Your task to perform on an android device: Go to calendar. Show me events next week Image 0: 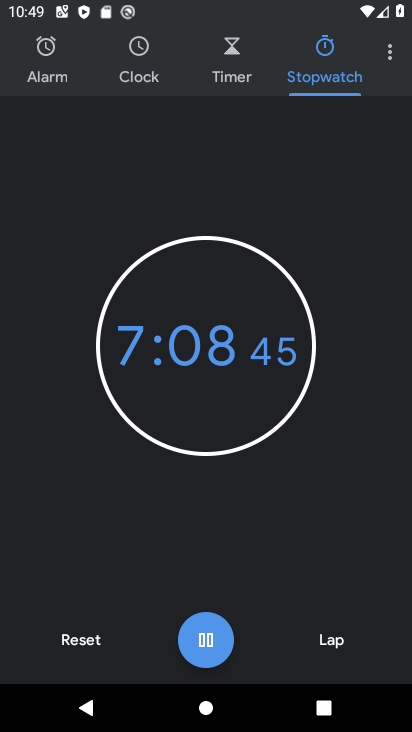
Step 0: press home button
Your task to perform on an android device: Go to calendar. Show me events next week Image 1: 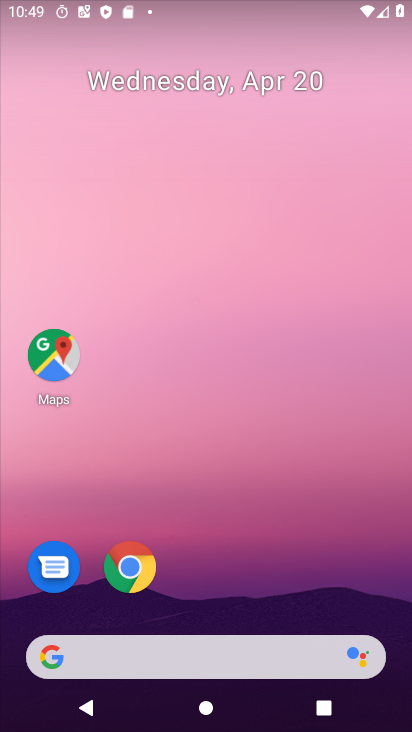
Step 1: drag from (211, 570) to (201, 165)
Your task to perform on an android device: Go to calendar. Show me events next week Image 2: 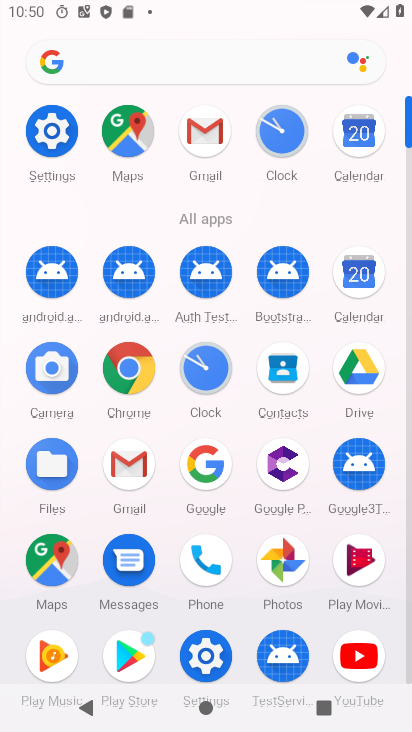
Step 2: click (371, 289)
Your task to perform on an android device: Go to calendar. Show me events next week Image 3: 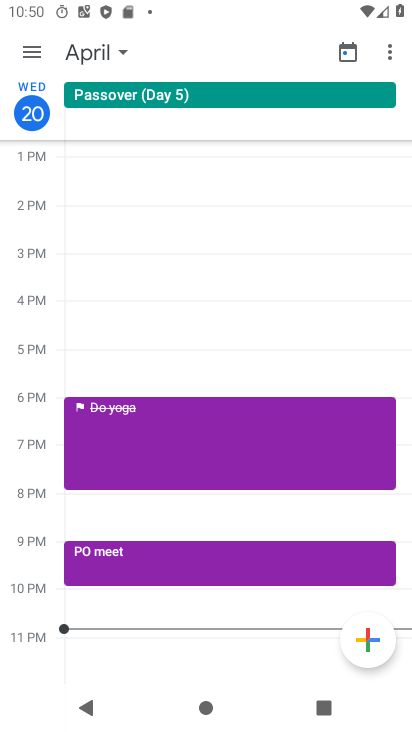
Step 3: click (34, 60)
Your task to perform on an android device: Go to calendar. Show me events next week Image 4: 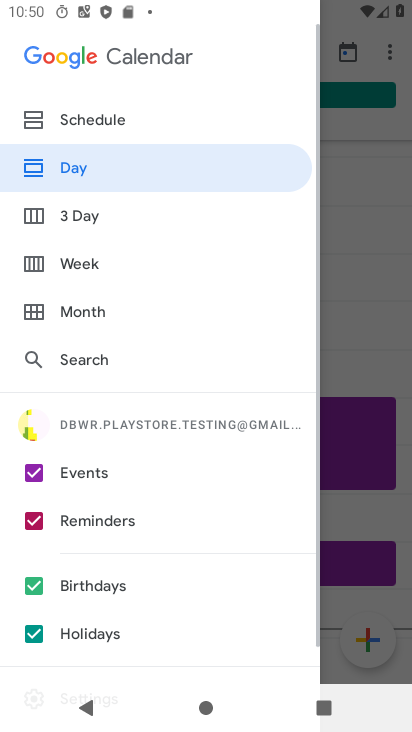
Step 4: click (98, 271)
Your task to perform on an android device: Go to calendar. Show me events next week Image 5: 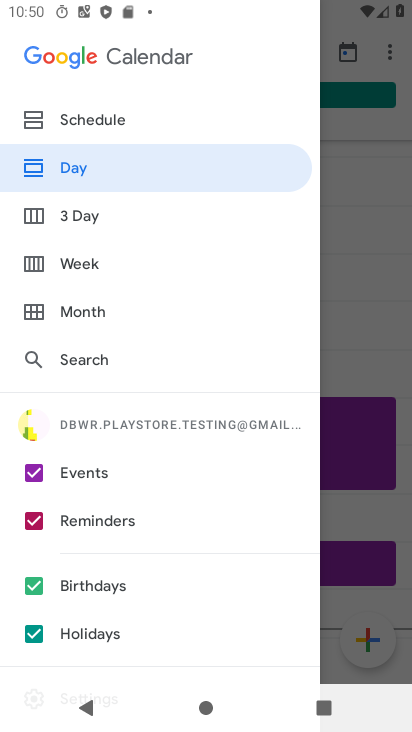
Step 5: click (151, 258)
Your task to perform on an android device: Go to calendar. Show me events next week Image 6: 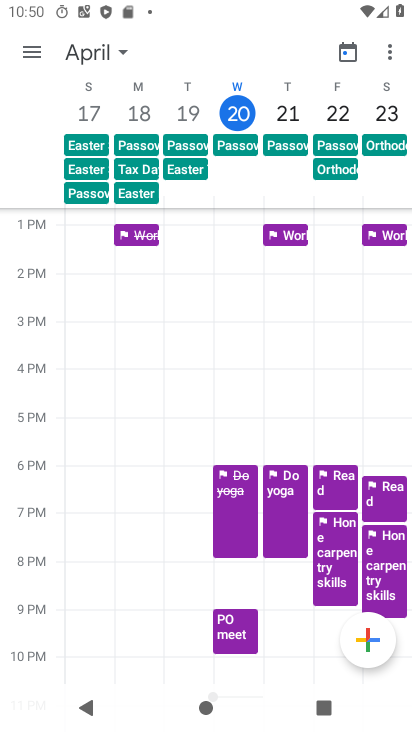
Step 6: drag from (359, 128) to (29, 115)
Your task to perform on an android device: Go to calendar. Show me events next week Image 7: 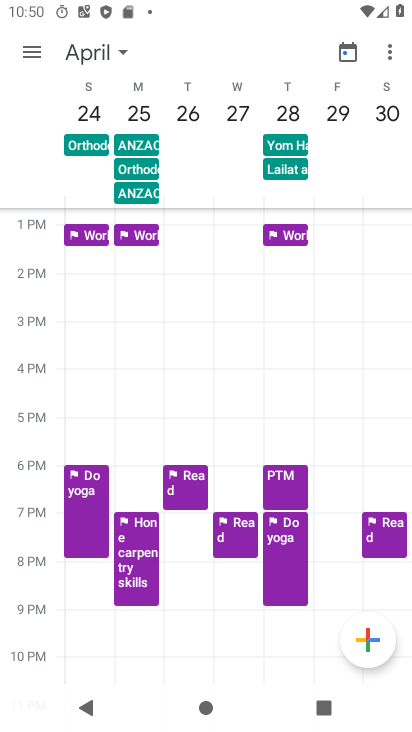
Step 7: click (90, 238)
Your task to perform on an android device: Go to calendar. Show me events next week Image 8: 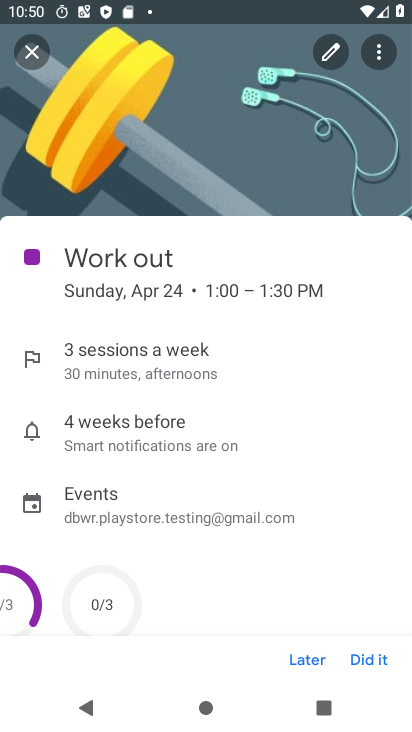
Step 8: task complete